Your task to perform on an android device: open sync settings in chrome Image 0: 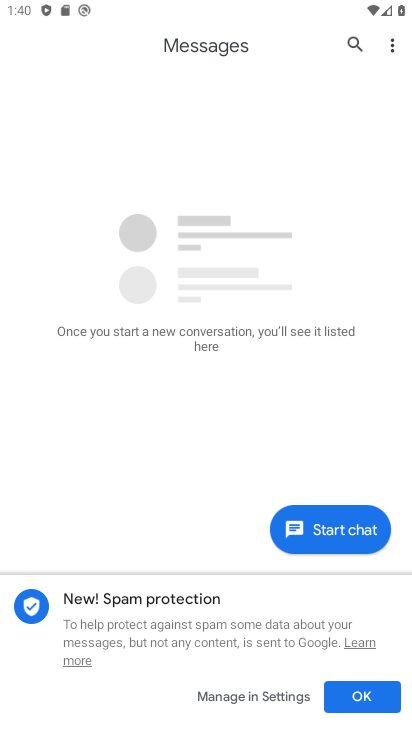
Step 0: press home button
Your task to perform on an android device: open sync settings in chrome Image 1: 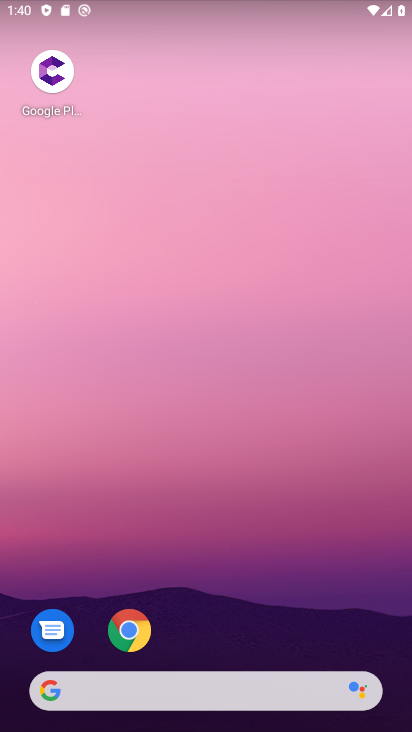
Step 1: click (136, 633)
Your task to perform on an android device: open sync settings in chrome Image 2: 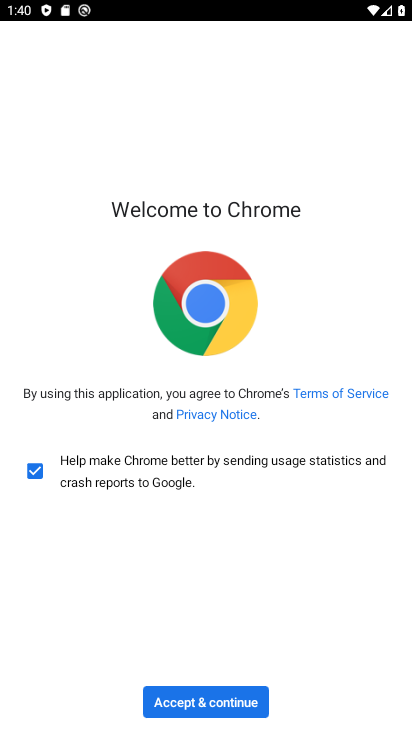
Step 2: click (153, 693)
Your task to perform on an android device: open sync settings in chrome Image 3: 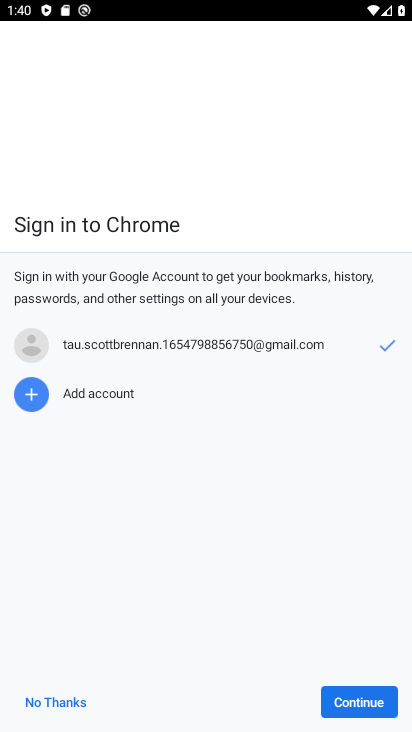
Step 3: click (342, 711)
Your task to perform on an android device: open sync settings in chrome Image 4: 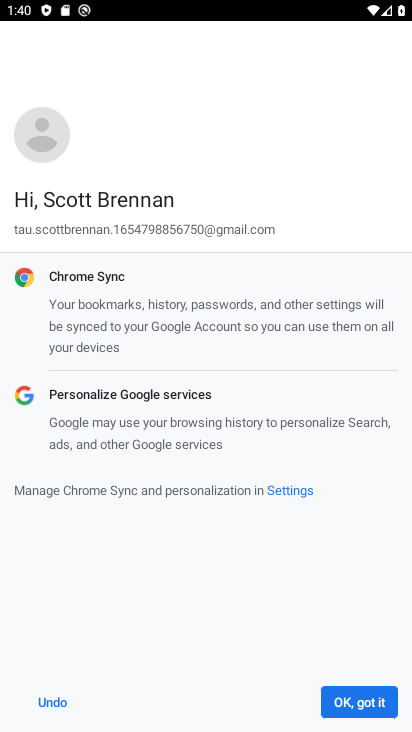
Step 4: click (350, 700)
Your task to perform on an android device: open sync settings in chrome Image 5: 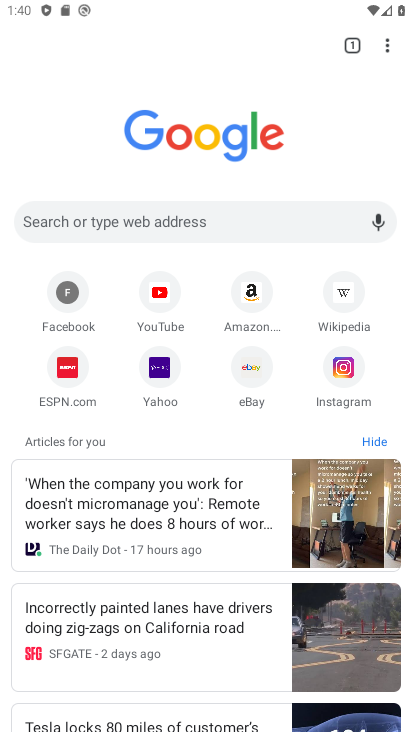
Step 5: click (394, 54)
Your task to perform on an android device: open sync settings in chrome Image 6: 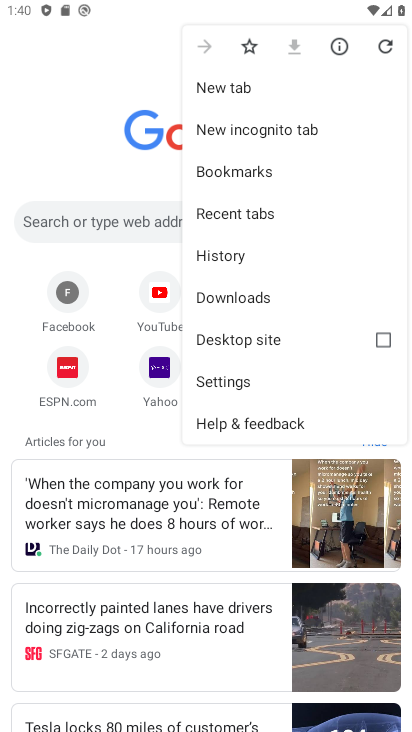
Step 6: click (242, 376)
Your task to perform on an android device: open sync settings in chrome Image 7: 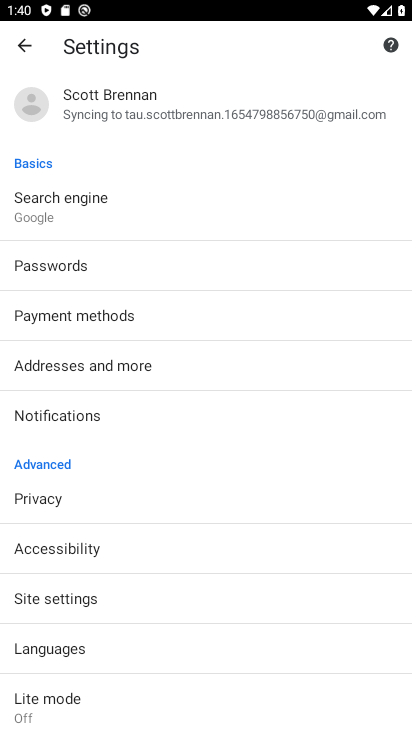
Step 7: click (98, 89)
Your task to perform on an android device: open sync settings in chrome Image 8: 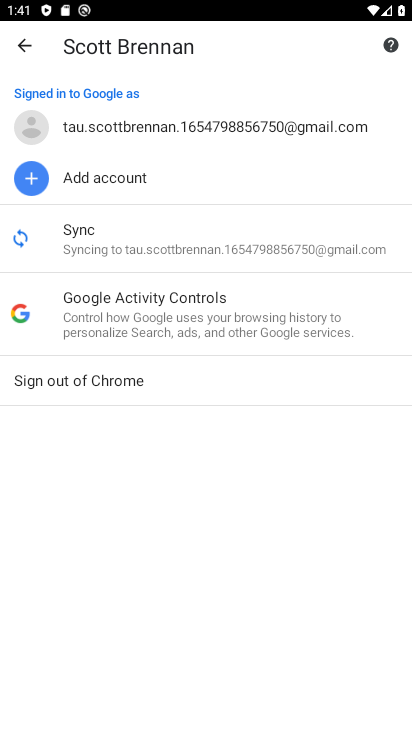
Step 8: click (151, 225)
Your task to perform on an android device: open sync settings in chrome Image 9: 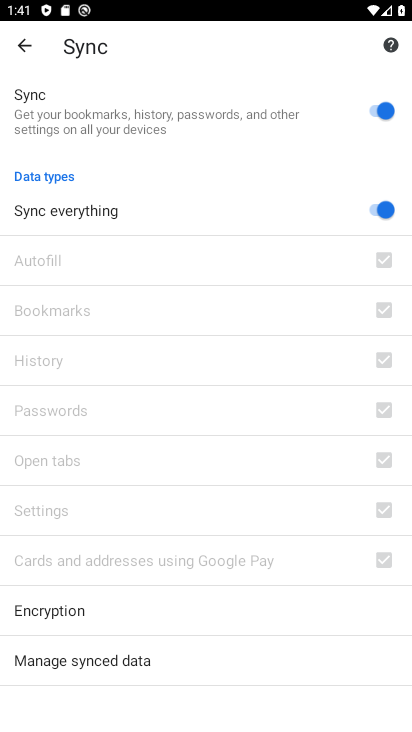
Step 9: task complete